Your task to perform on an android device: Open Youtube and go to the subscriptions tab Image 0: 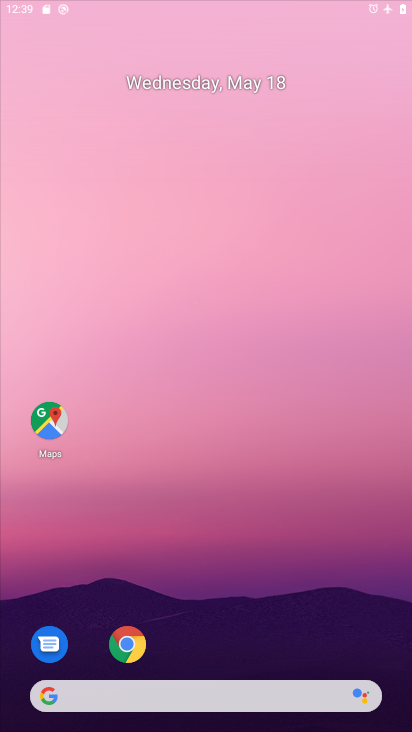
Step 0: press home button
Your task to perform on an android device: Open Youtube and go to the subscriptions tab Image 1: 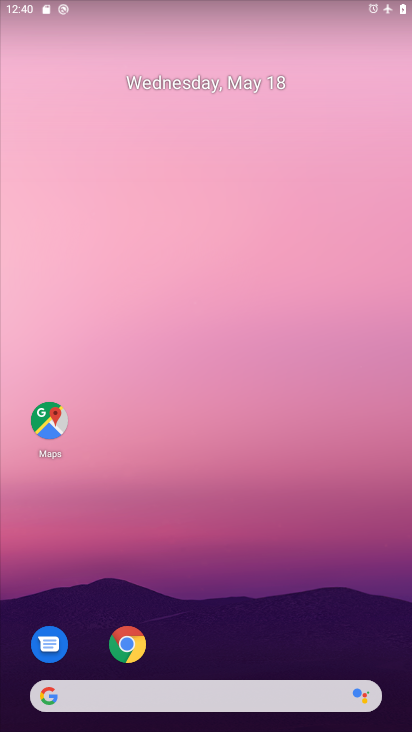
Step 1: drag from (232, 658) to (275, 89)
Your task to perform on an android device: Open Youtube and go to the subscriptions tab Image 2: 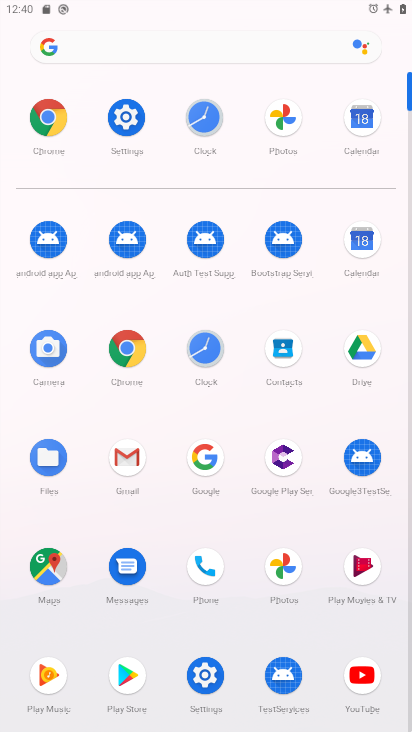
Step 2: click (356, 677)
Your task to perform on an android device: Open Youtube and go to the subscriptions tab Image 3: 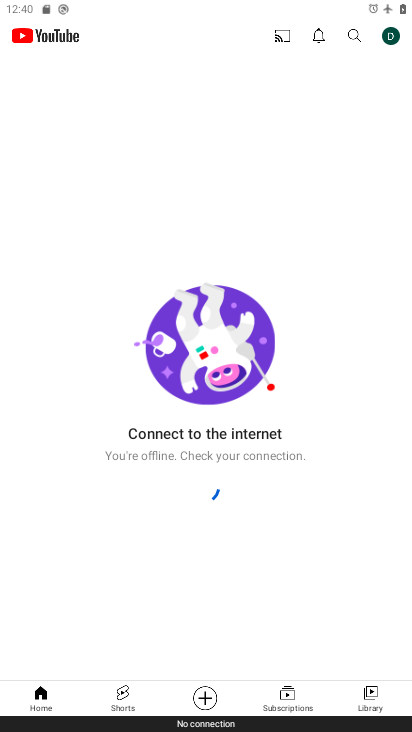
Step 3: click (283, 687)
Your task to perform on an android device: Open Youtube and go to the subscriptions tab Image 4: 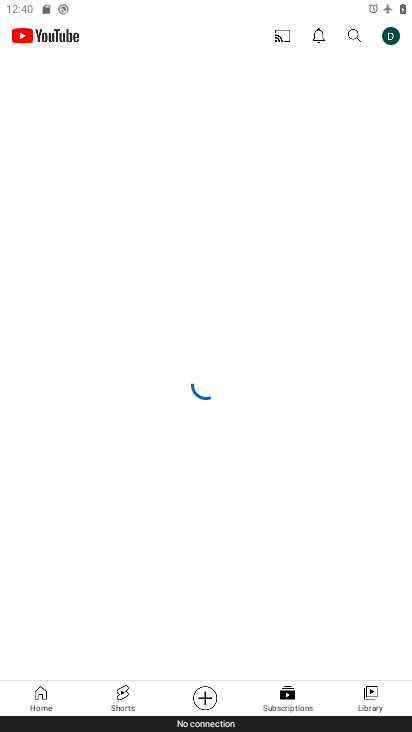
Step 4: task complete